Your task to perform on an android device: What's the weather today? Image 0: 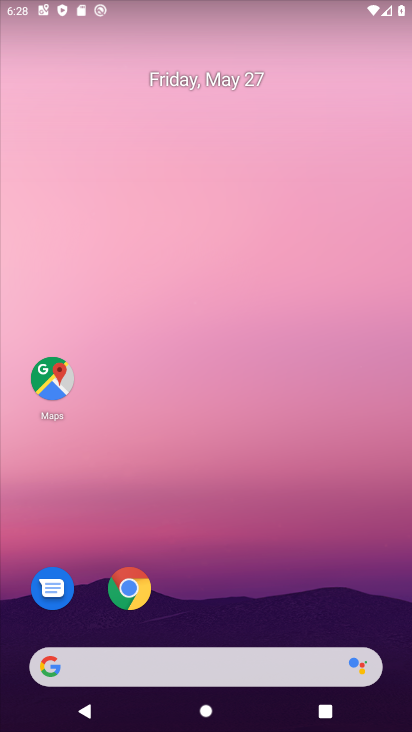
Step 0: click (112, 587)
Your task to perform on an android device: What's the weather today? Image 1: 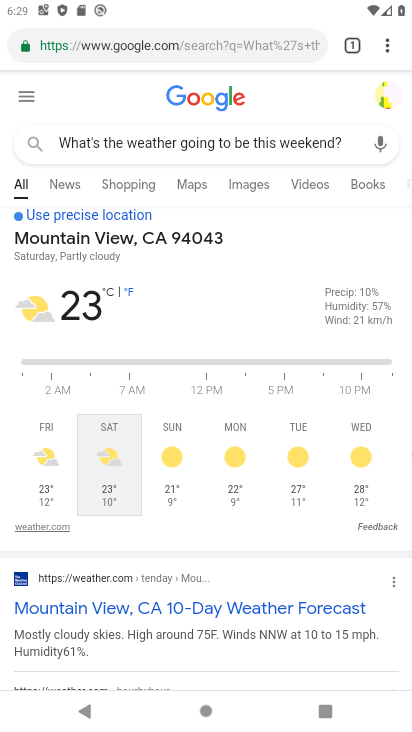
Step 1: click (208, 45)
Your task to perform on an android device: What's the weather today? Image 2: 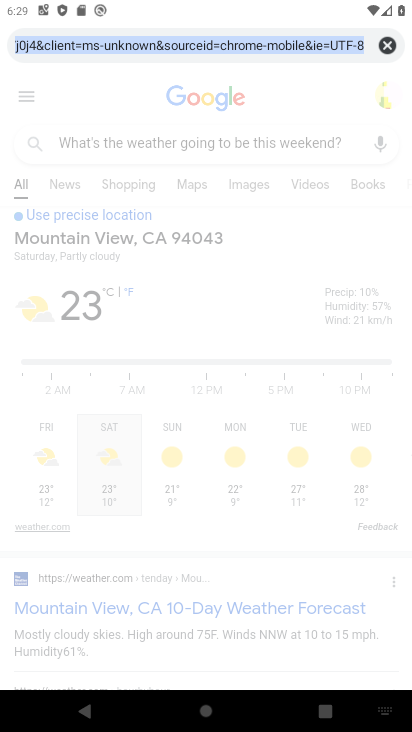
Step 2: click (384, 42)
Your task to perform on an android device: What's the weather today? Image 3: 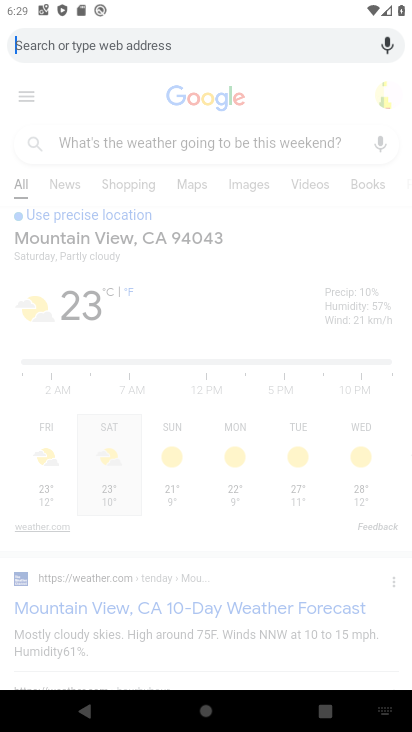
Step 3: type "What's the weather today?"
Your task to perform on an android device: What's the weather today? Image 4: 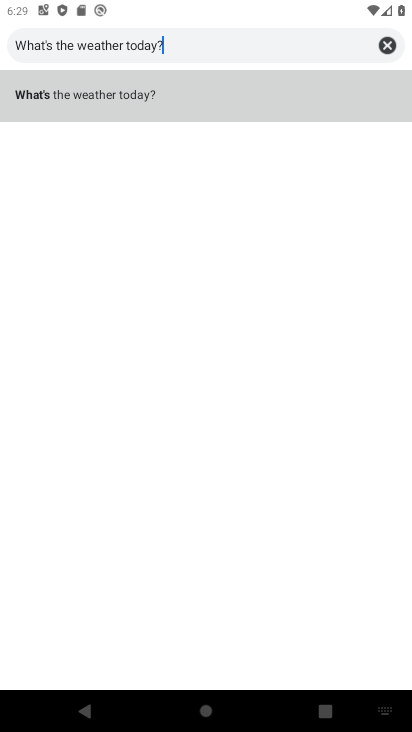
Step 4: type ""
Your task to perform on an android device: What's the weather today? Image 5: 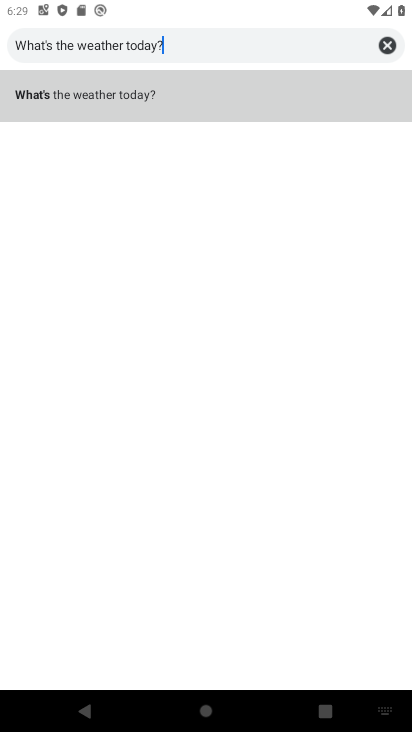
Step 5: click (293, 86)
Your task to perform on an android device: What's the weather today? Image 6: 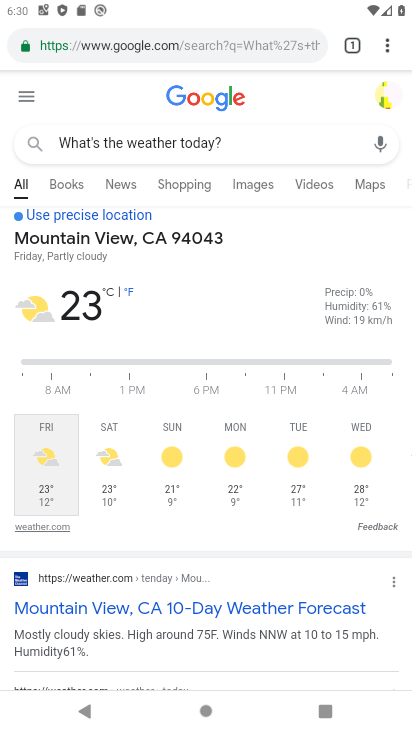
Step 6: task complete